Your task to perform on an android device: Go to privacy settings Image 0: 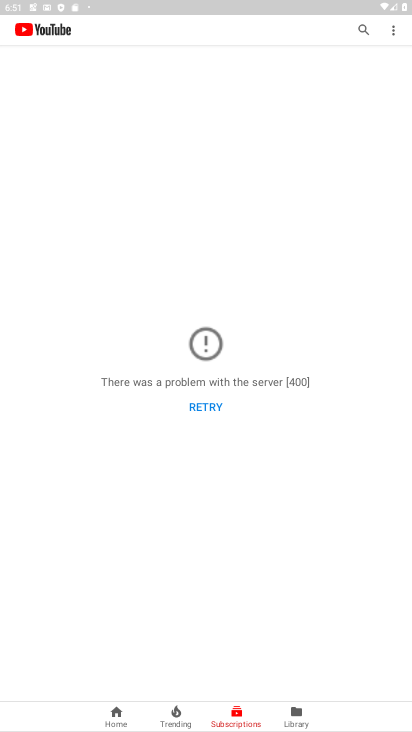
Step 0: press home button
Your task to perform on an android device: Go to privacy settings Image 1: 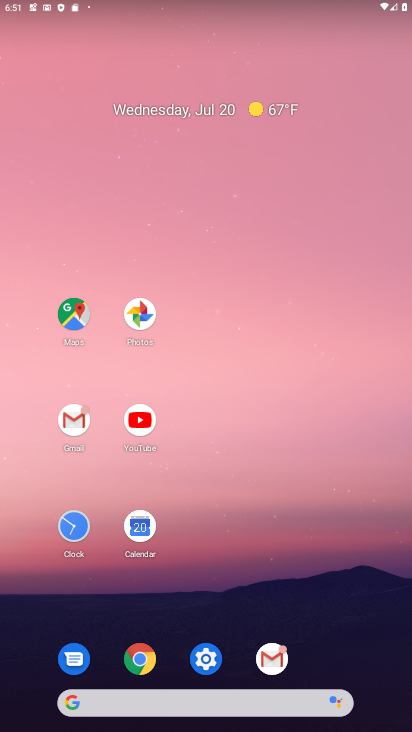
Step 1: click (206, 658)
Your task to perform on an android device: Go to privacy settings Image 2: 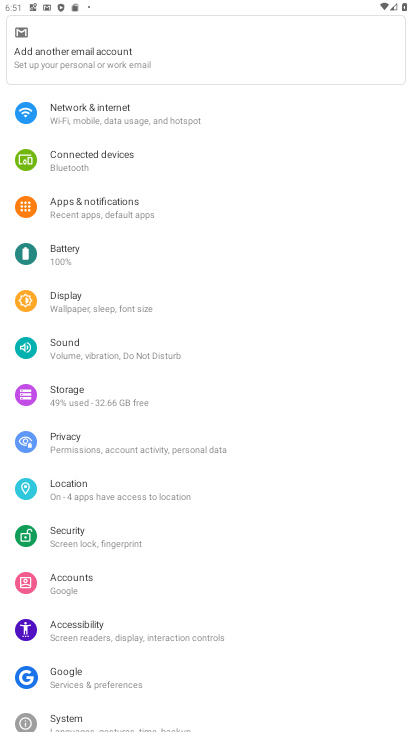
Step 2: click (59, 433)
Your task to perform on an android device: Go to privacy settings Image 3: 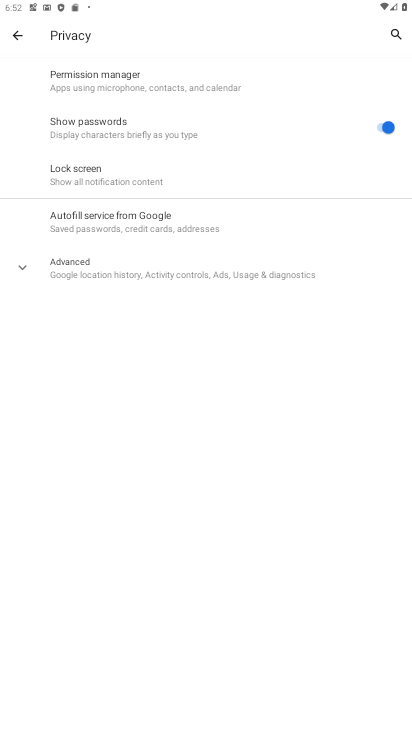
Step 3: task complete